Your task to perform on an android device: What is the recent news? Image 0: 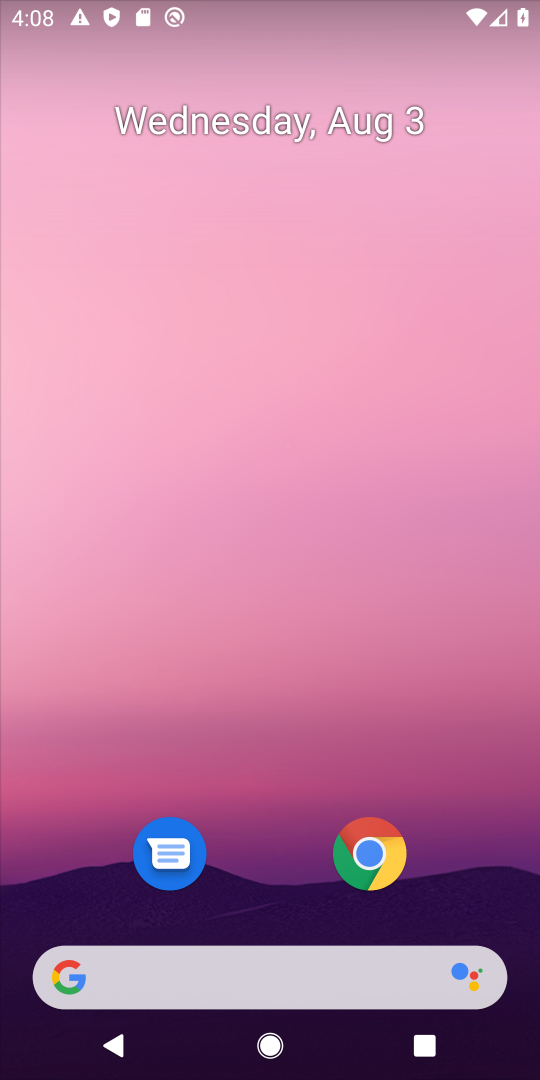
Step 0: drag from (4, 379) to (497, 367)
Your task to perform on an android device: What is the recent news? Image 1: 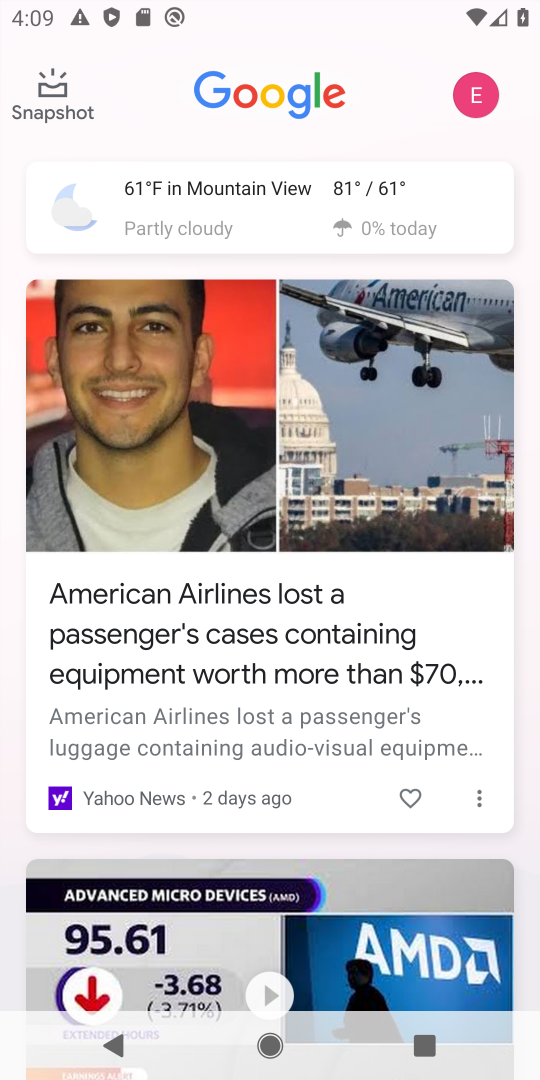
Step 1: task complete